Your task to perform on an android device: change the clock display to analog Image 0: 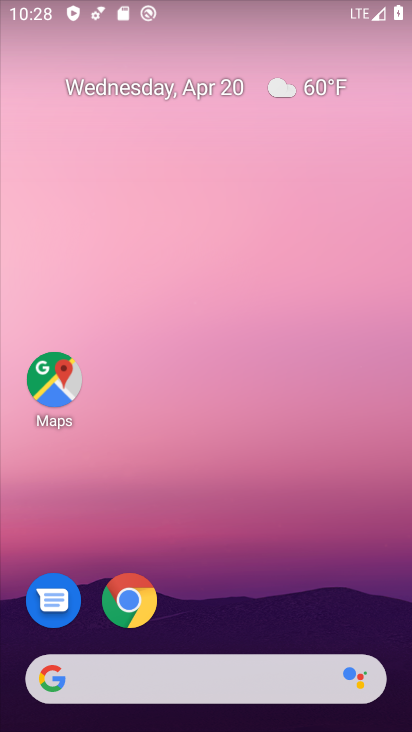
Step 0: drag from (262, 603) to (252, 112)
Your task to perform on an android device: change the clock display to analog Image 1: 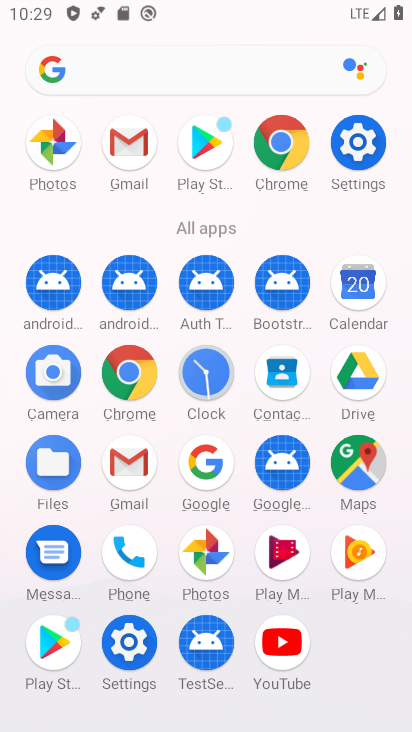
Step 1: click (219, 382)
Your task to perform on an android device: change the clock display to analog Image 2: 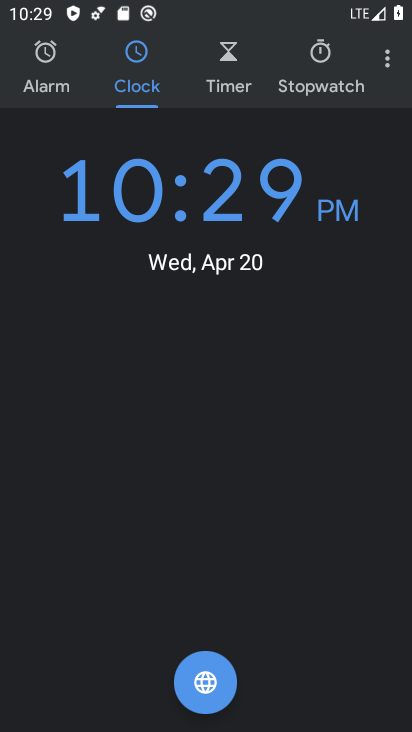
Step 2: click (387, 54)
Your task to perform on an android device: change the clock display to analog Image 3: 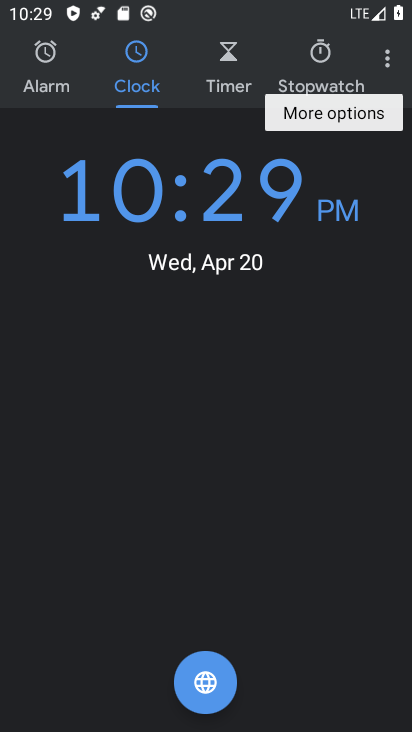
Step 3: click (380, 63)
Your task to perform on an android device: change the clock display to analog Image 4: 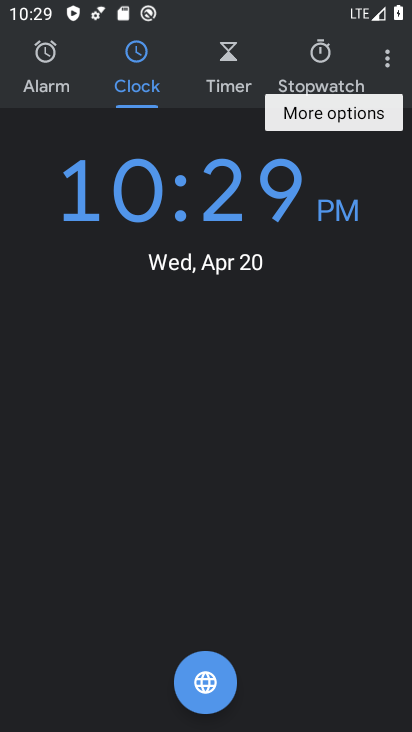
Step 4: click (344, 114)
Your task to perform on an android device: change the clock display to analog Image 5: 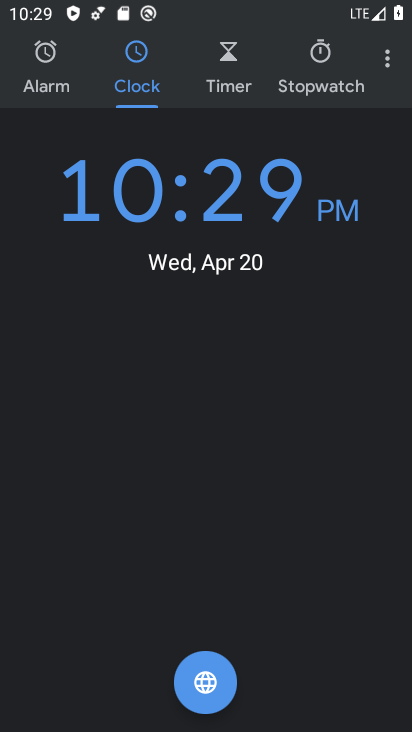
Step 5: click (390, 61)
Your task to perform on an android device: change the clock display to analog Image 6: 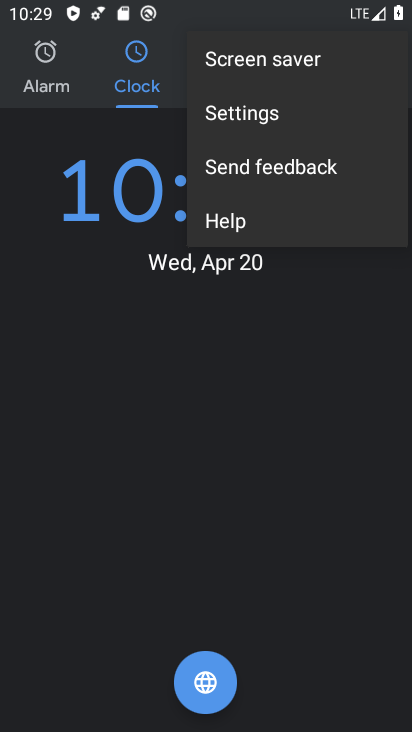
Step 6: click (270, 117)
Your task to perform on an android device: change the clock display to analog Image 7: 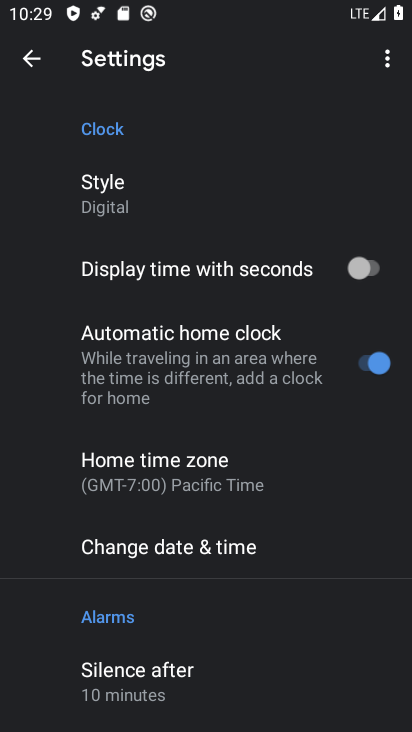
Step 7: click (118, 182)
Your task to perform on an android device: change the clock display to analog Image 8: 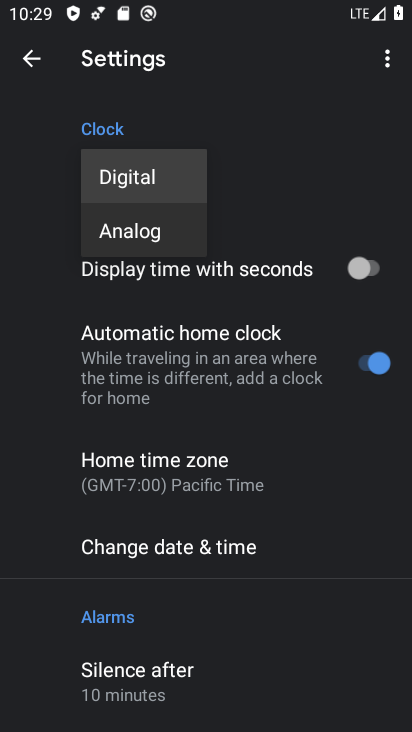
Step 8: click (134, 230)
Your task to perform on an android device: change the clock display to analog Image 9: 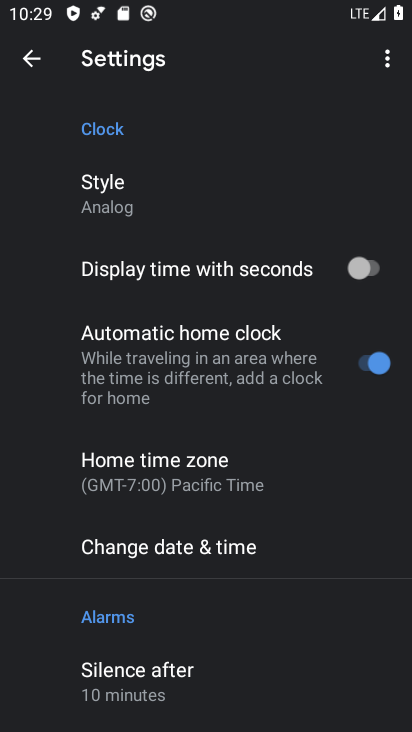
Step 9: task complete